Your task to perform on an android device: clear history in the chrome app Image 0: 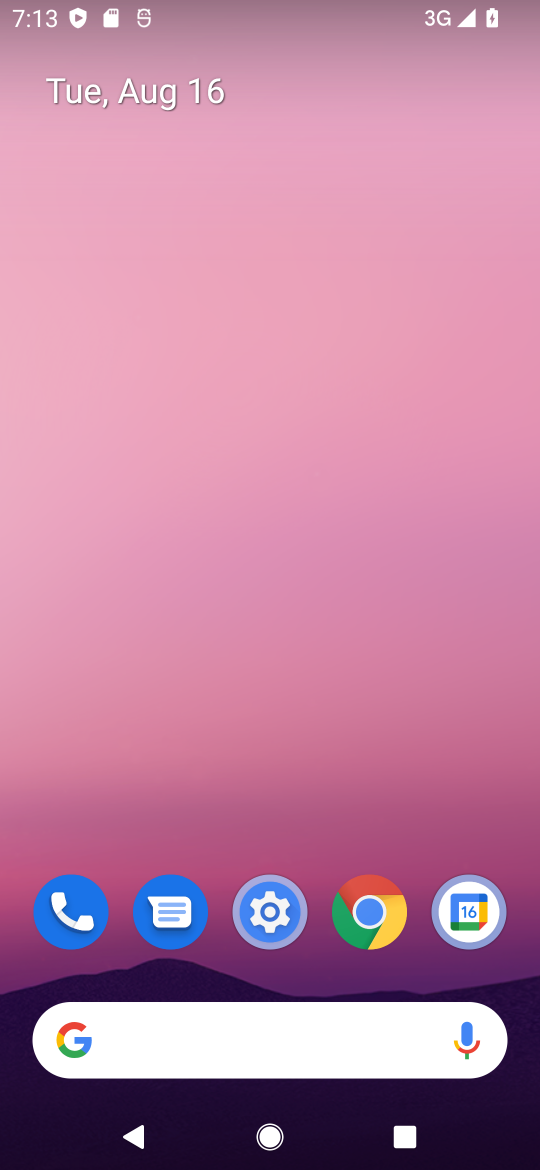
Step 0: click (373, 913)
Your task to perform on an android device: clear history in the chrome app Image 1: 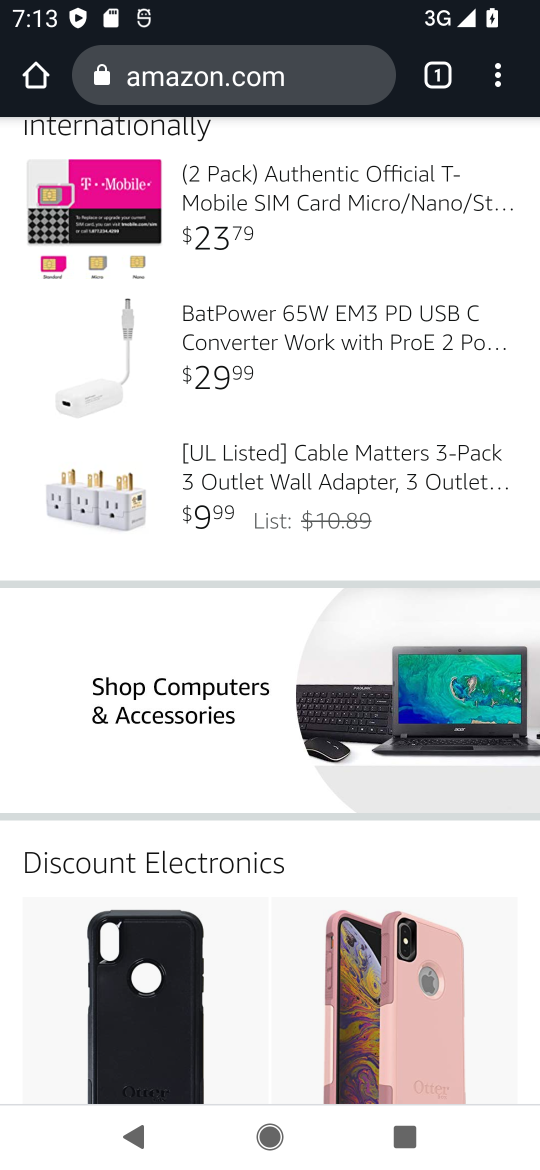
Step 1: click (493, 88)
Your task to perform on an android device: clear history in the chrome app Image 2: 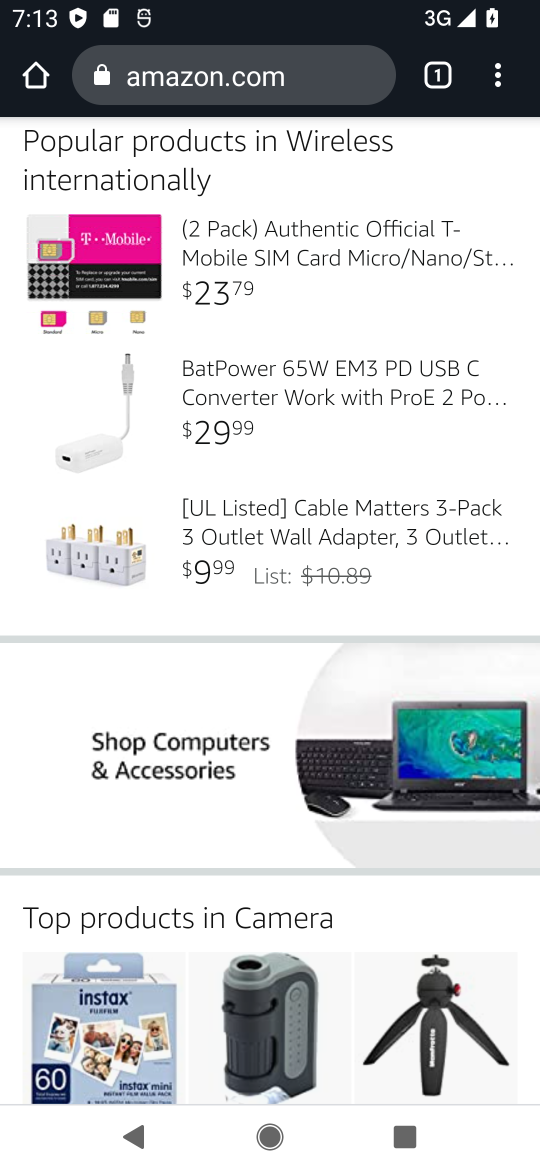
Step 2: click (498, 95)
Your task to perform on an android device: clear history in the chrome app Image 3: 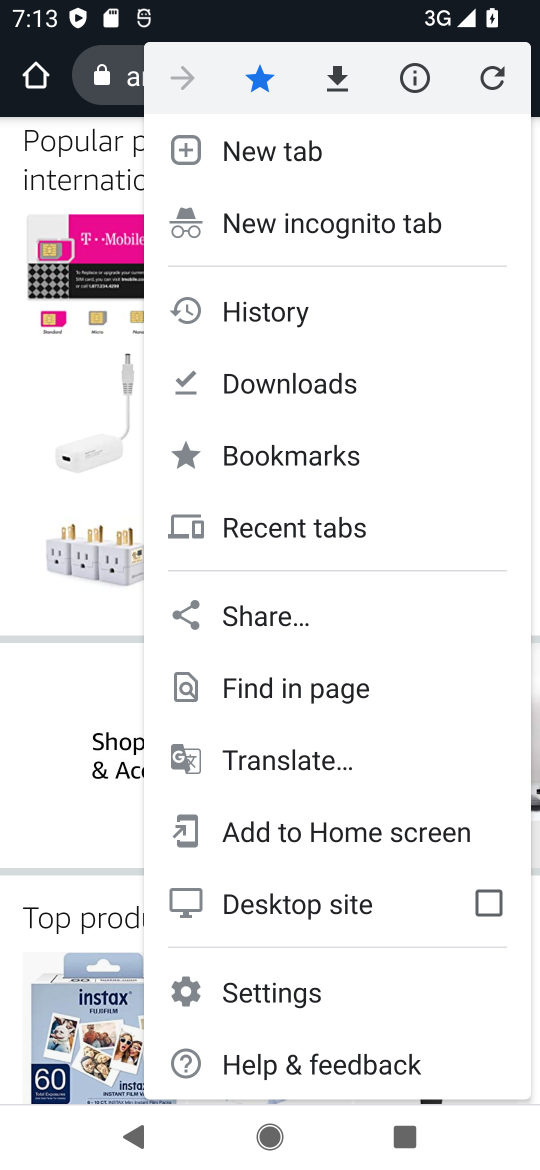
Step 3: click (277, 304)
Your task to perform on an android device: clear history in the chrome app Image 4: 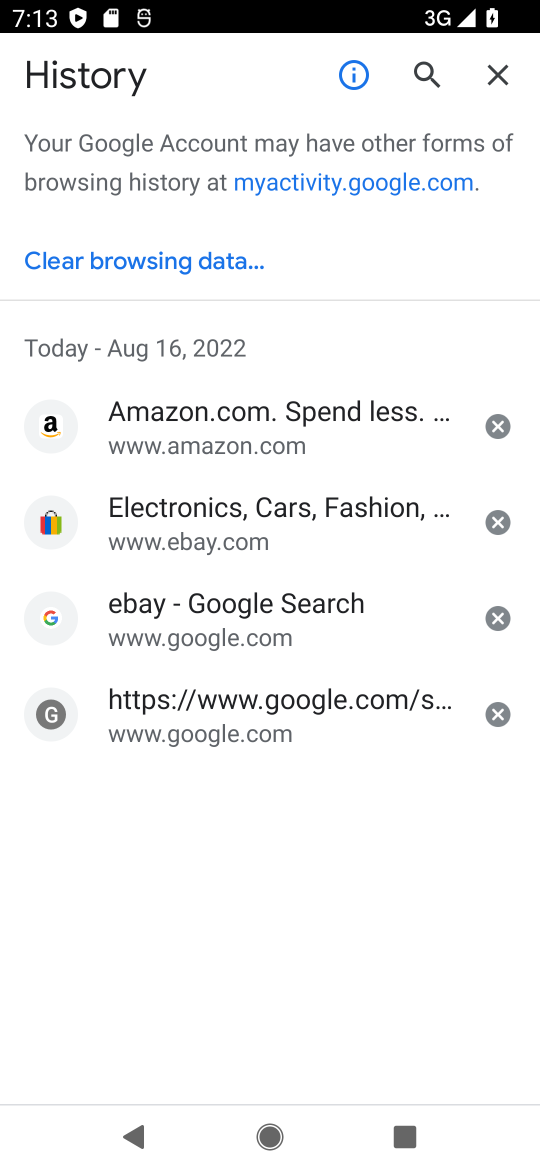
Step 4: click (120, 256)
Your task to perform on an android device: clear history in the chrome app Image 5: 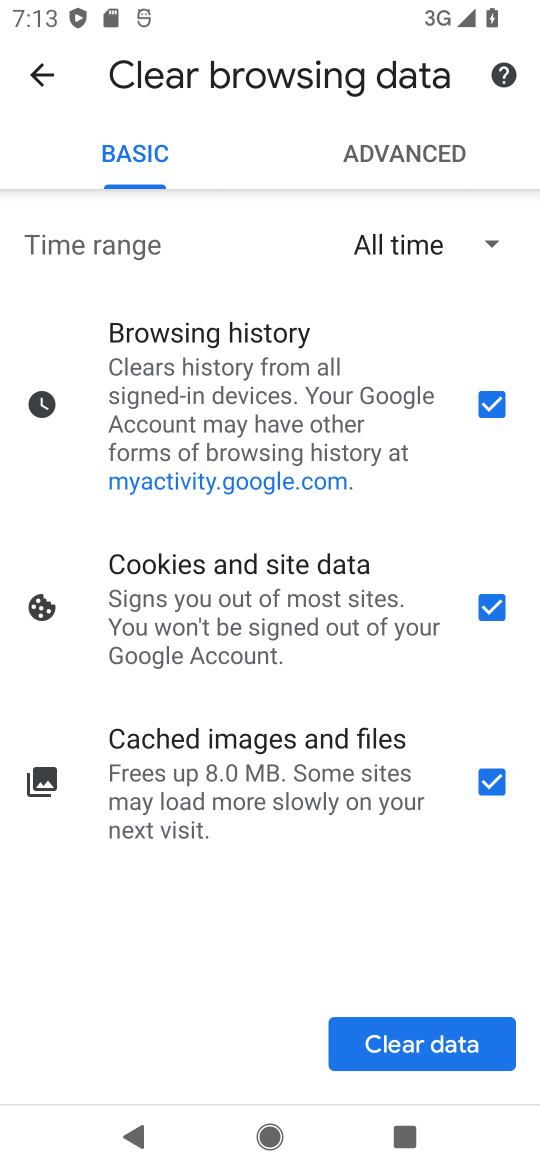
Step 5: click (496, 612)
Your task to perform on an android device: clear history in the chrome app Image 6: 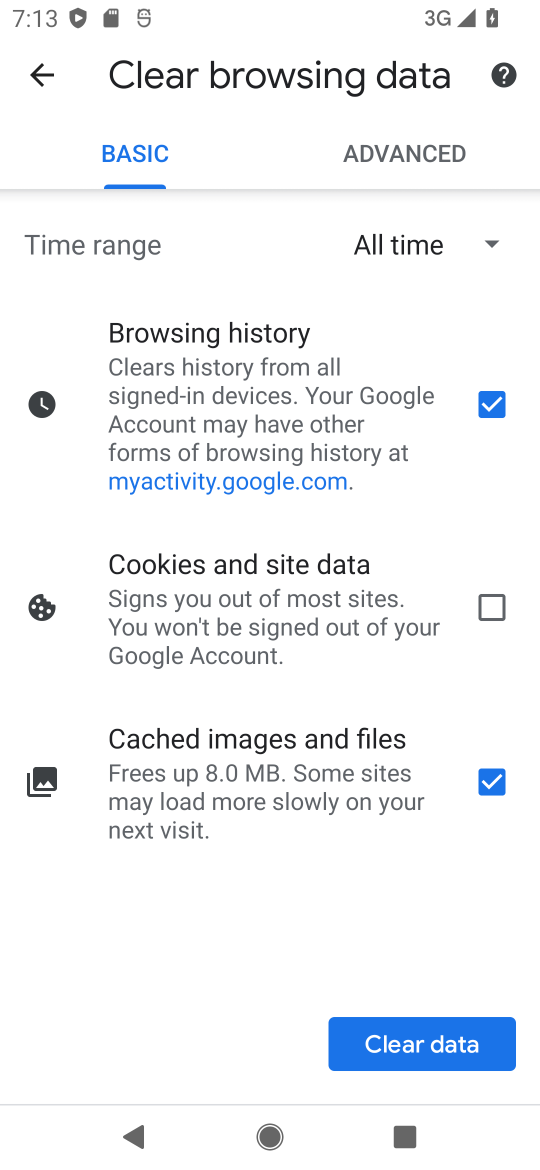
Step 6: click (490, 780)
Your task to perform on an android device: clear history in the chrome app Image 7: 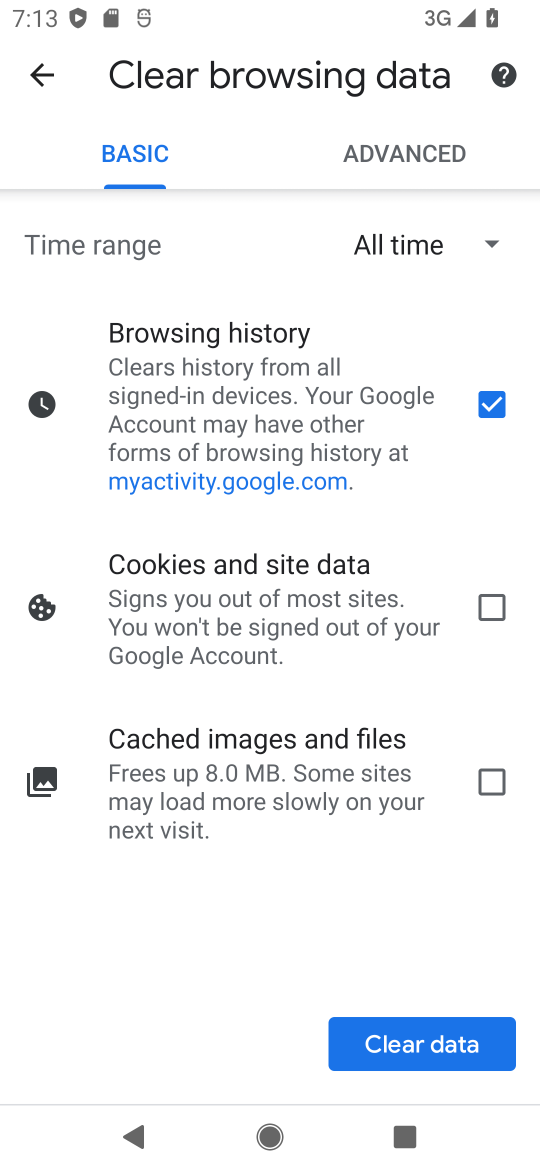
Step 7: click (431, 1048)
Your task to perform on an android device: clear history in the chrome app Image 8: 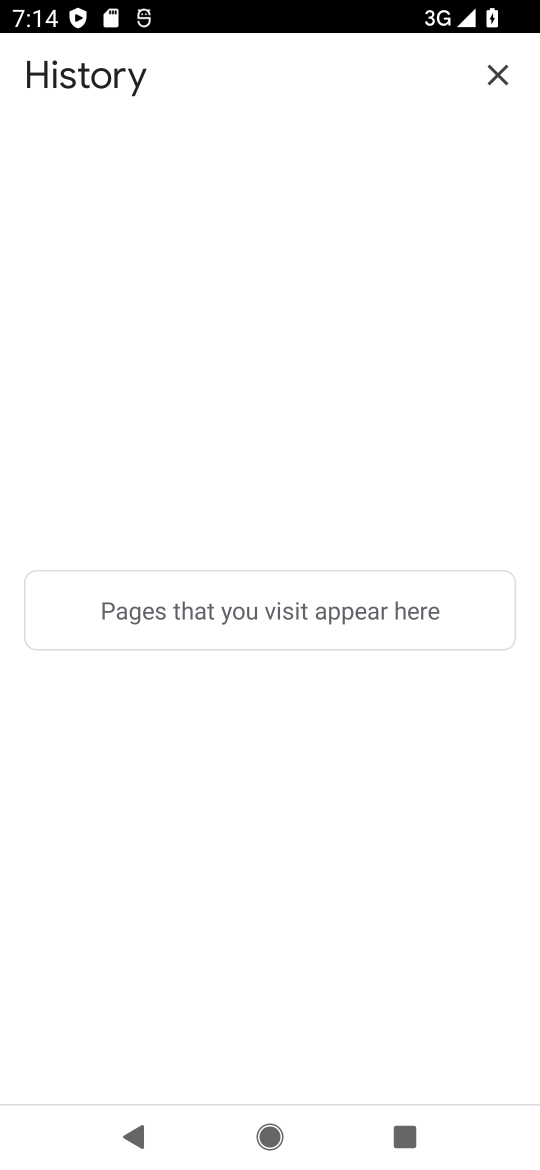
Step 8: task complete